Your task to perform on an android device: delete a single message in the gmail app Image 0: 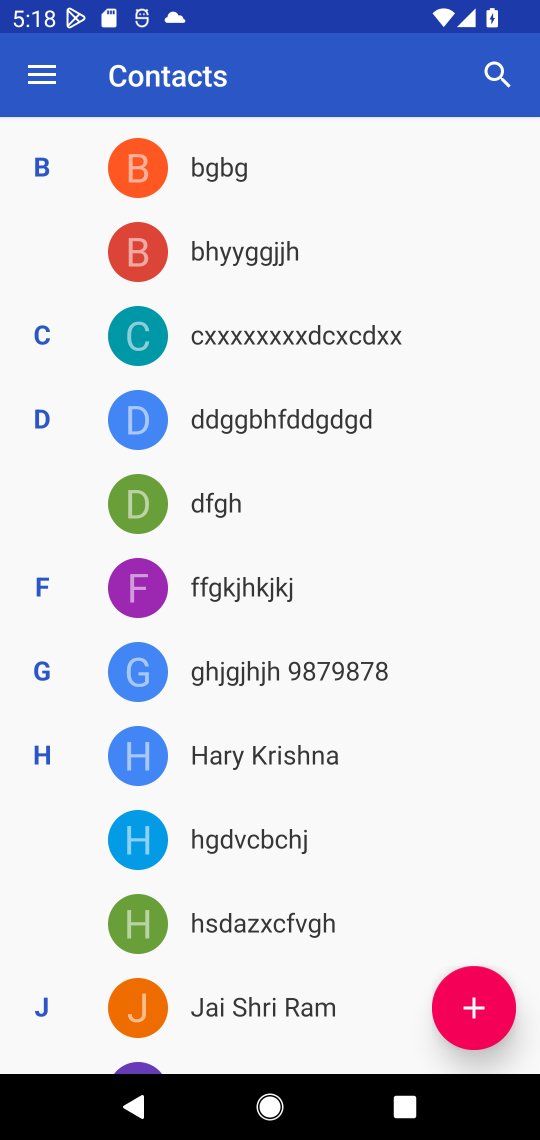
Step 0: press home button
Your task to perform on an android device: delete a single message in the gmail app Image 1: 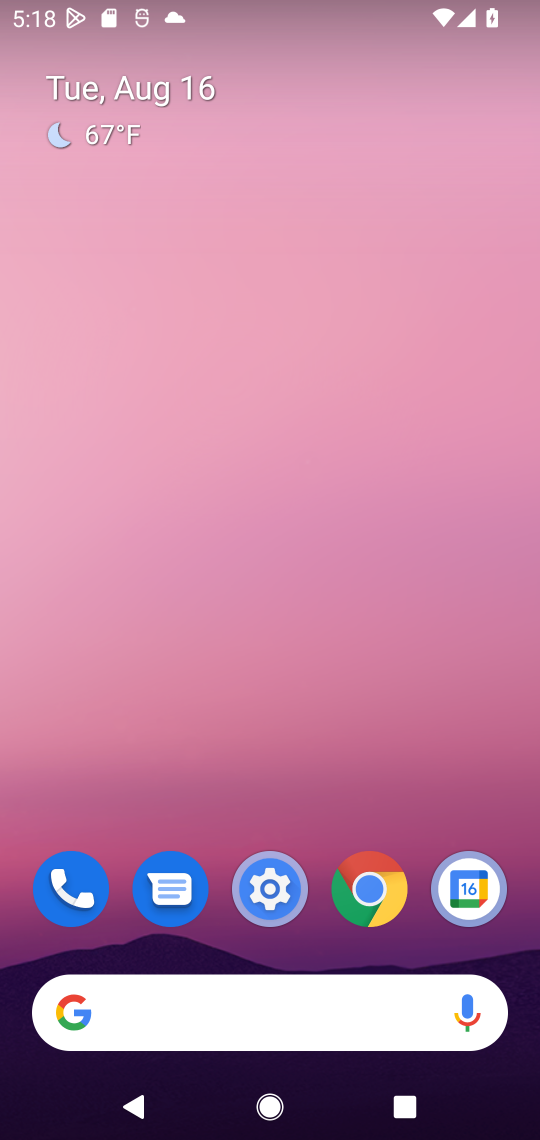
Step 1: drag from (285, 644) to (321, 238)
Your task to perform on an android device: delete a single message in the gmail app Image 2: 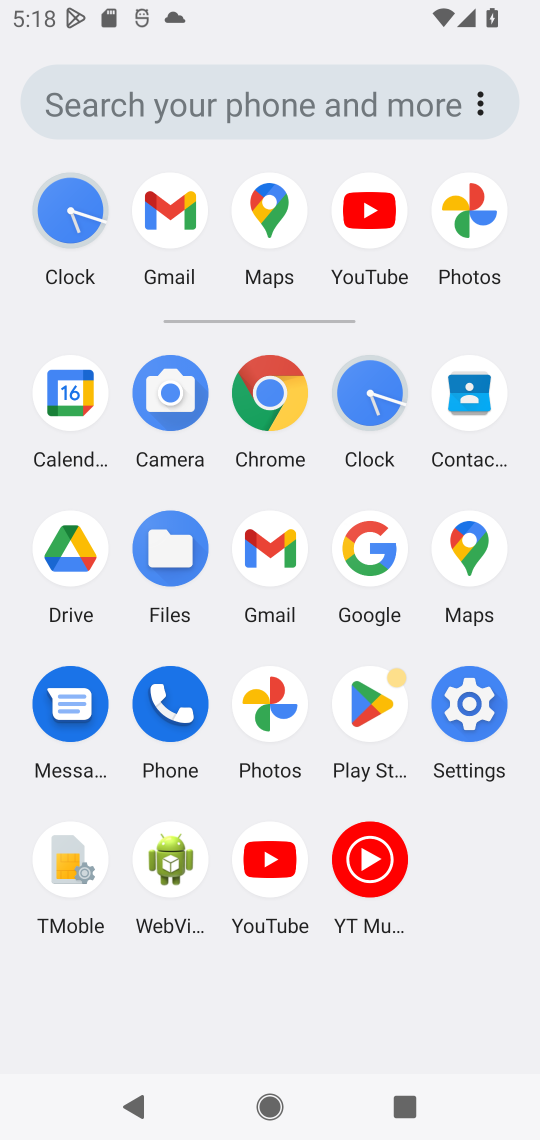
Step 2: click (267, 541)
Your task to perform on an android device: delete a single message in the gmail app Image 3: 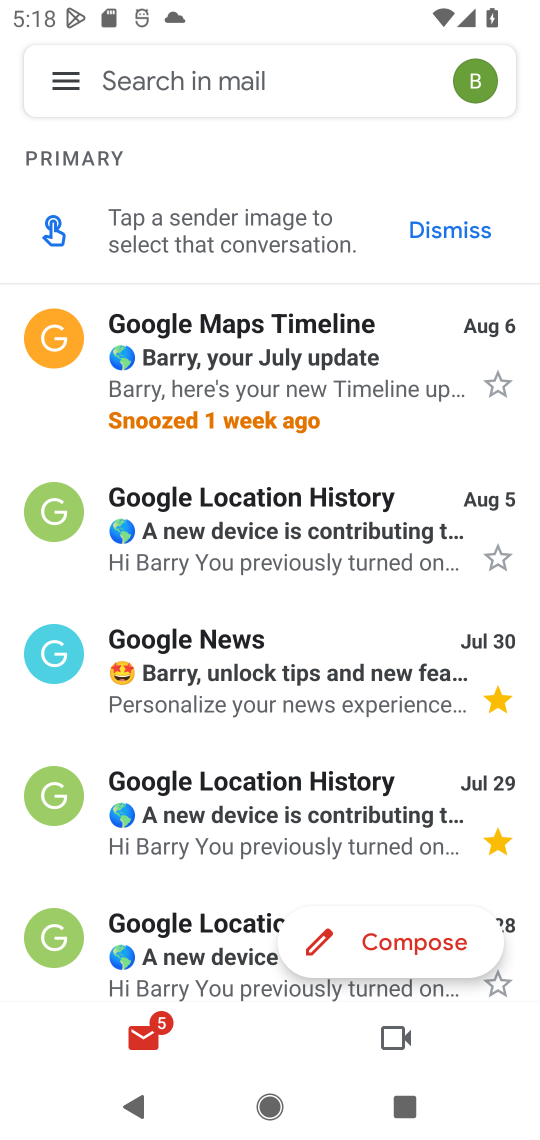
Step 3: task complete